Your task to perform on an android device: toggle translation in the chrome app Image 0: 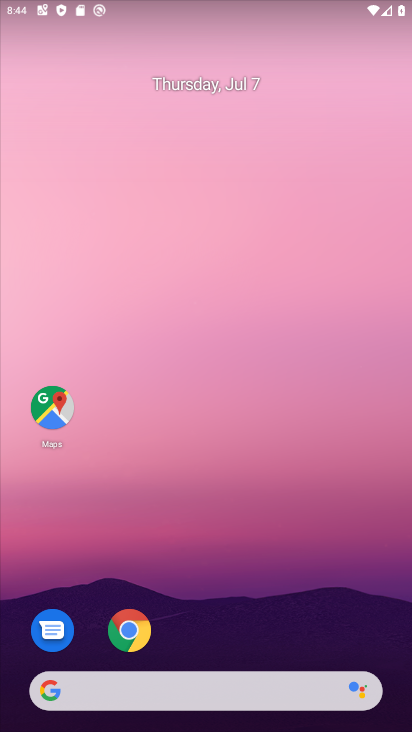
Step 0: drag from (201, 615) to (249, 200)
Your task to perform on an android device: toggle translation in the chrome app Image 1: 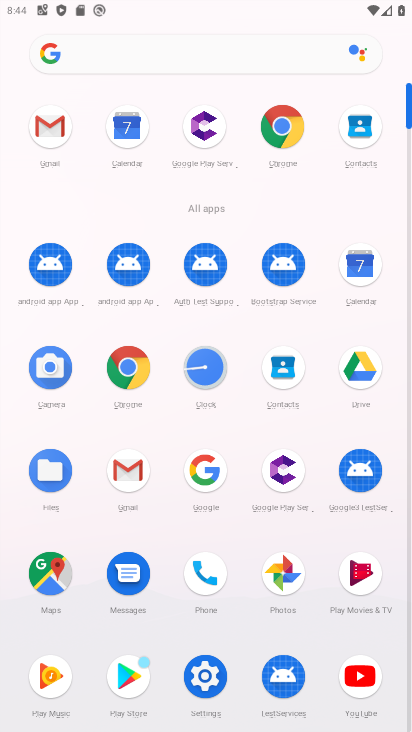
Step 1: click (270, 129)
Your task to perform on an android device: toggle translation in the chrome app Image 2: 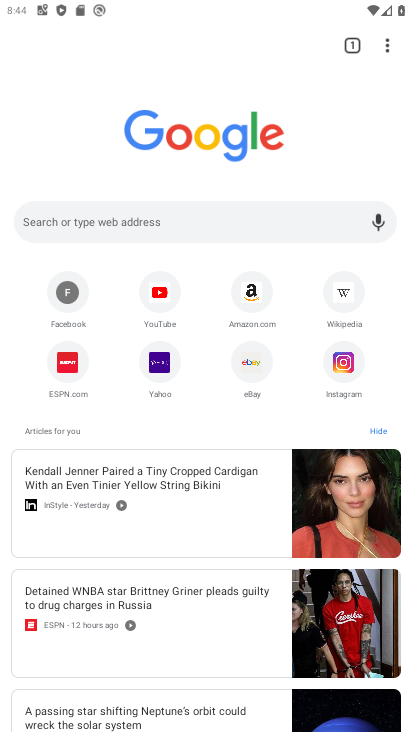
Step 2: click (381, 48)
Your task to perform on an android device: toggle translation in the chrome app Image 3: 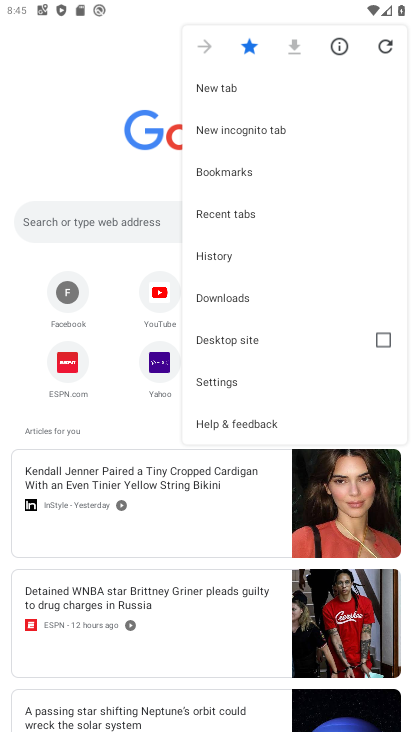
Step 3: click (225, 383)
Your task to perform on an android device: toggle translation in the chrome app Image 4: 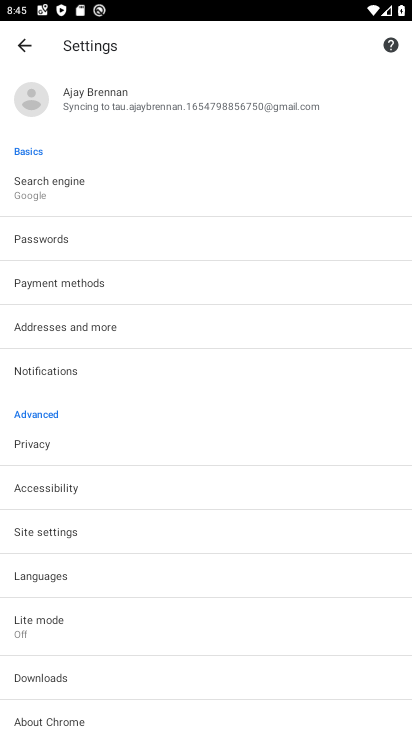
Step 4: drag from (144, 569) to (169, 246)
Your task to perform on an android device: toggle translation in the chrome app Image 5: 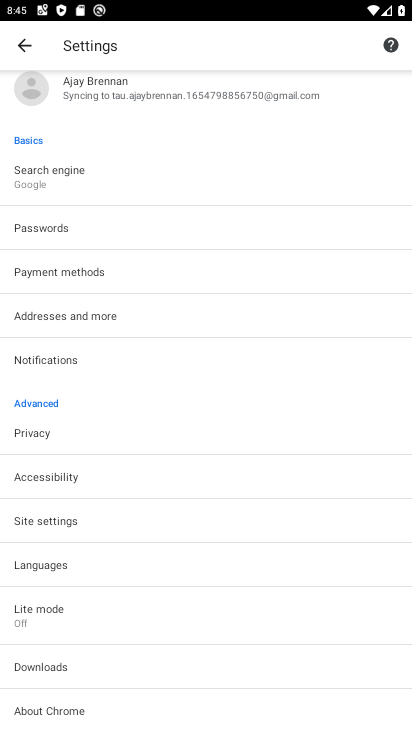
Step 5: click (61, 503)
Your task to perform on an android device: toggle translation in the chrome app Image 6: 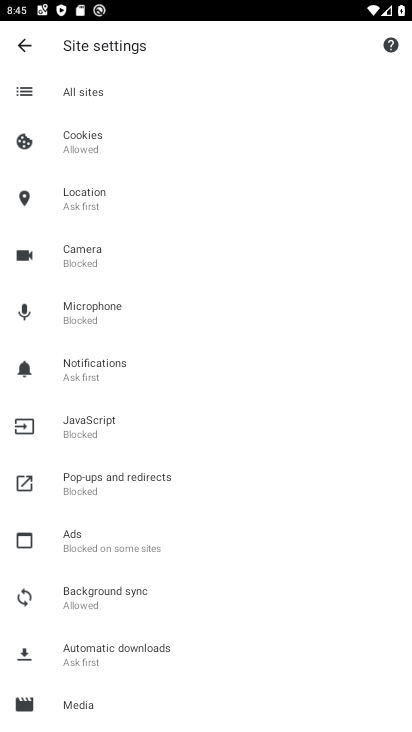
Step 6: drag from (180, 516) to (195, 358)
Your task to perform on an android device: toggle translation in the chrome app Image 7: 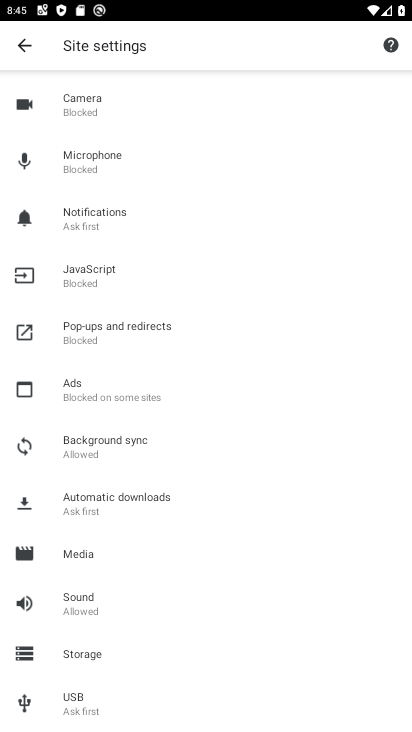
Step 7: drag from (152, 661) to (136, 699)
Your task to perform on an android device: toggle translation in the chrome app Image 8: 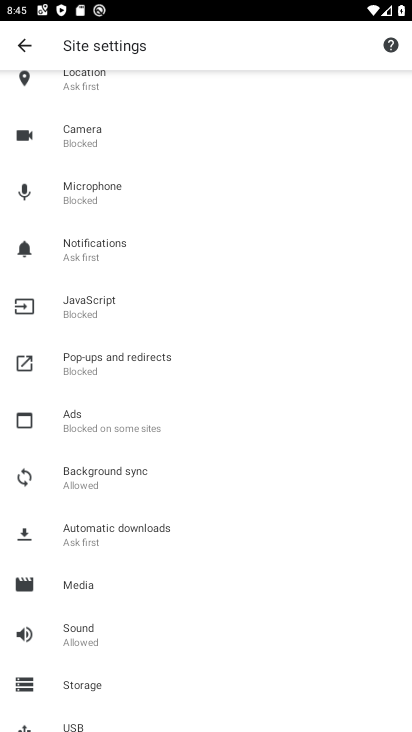
Step 8: click (20, 40)
Your task to perform on an android device: toggle translation in the chrome app Image 9: 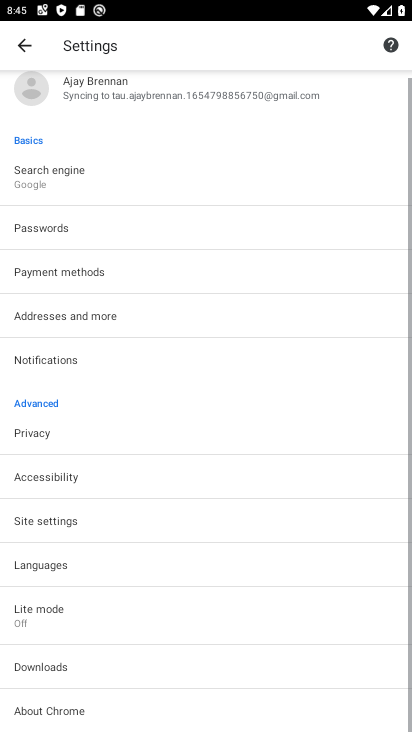
Step 9: drag from (189, 570) to (187, 240)
Your task to perform on an android device: toggle translation in the chrome app Image 10: 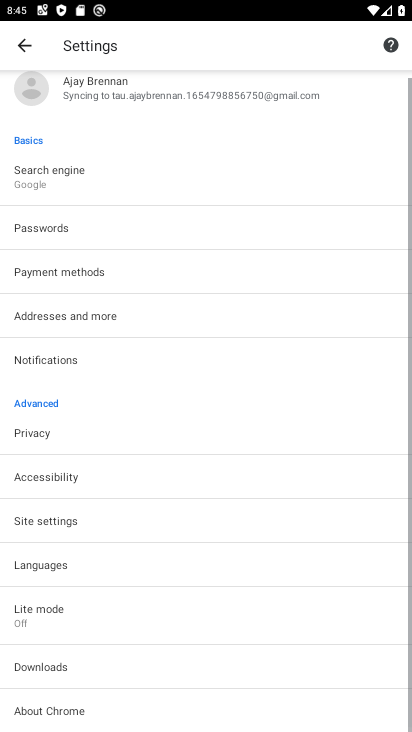
Step 10: click (208, 255)
Your task to perform on an android device: toggle translation in the chrome app Image 11: 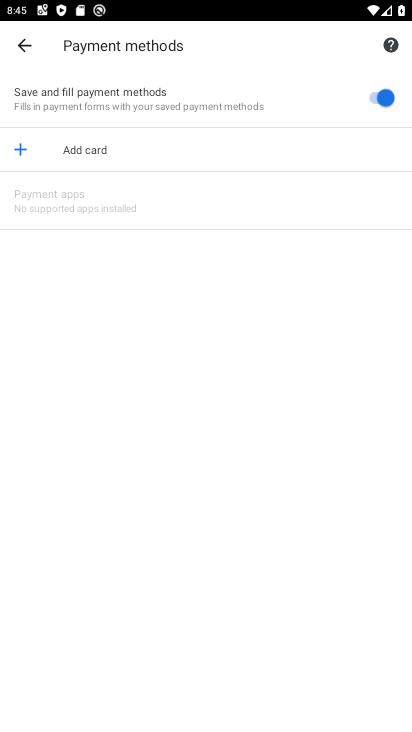
Step 11: drag from (118, 622) to (110, 227)
Your task to perform on an android device: toggle translation in the chrome app Image 12: 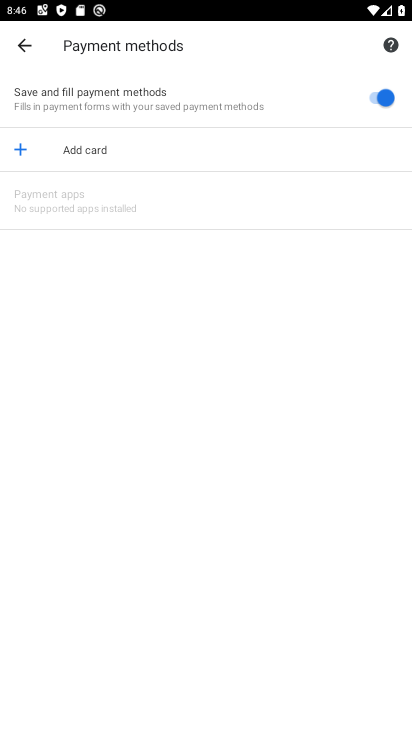
Step 12: click (21, 43)
Your task to perform on an android device: toggle translation in the chrome app Image 13: 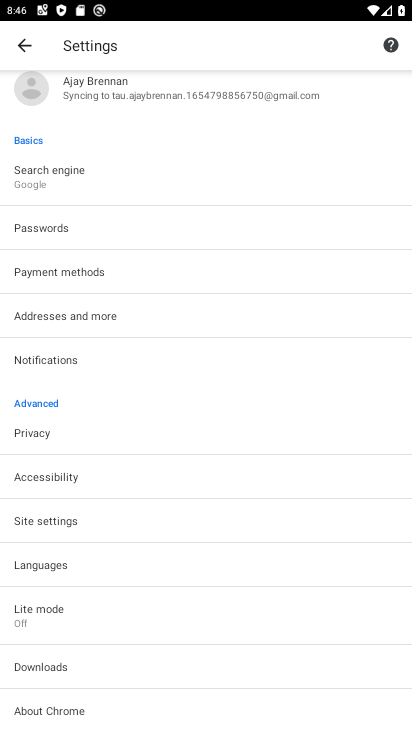
Step 13: click (74, 568)
Your task to perform on an android device: toggle translation in the chrome app Image 14: 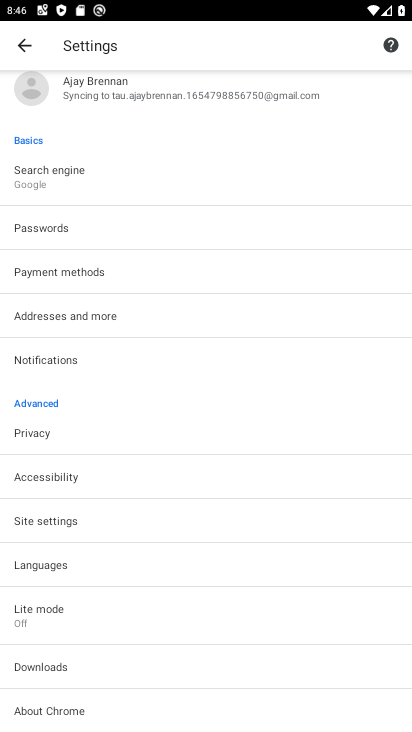
Step 14: click (78, 568)
Your task to perform on an android device: toggle translation in the chrome app Image 15: 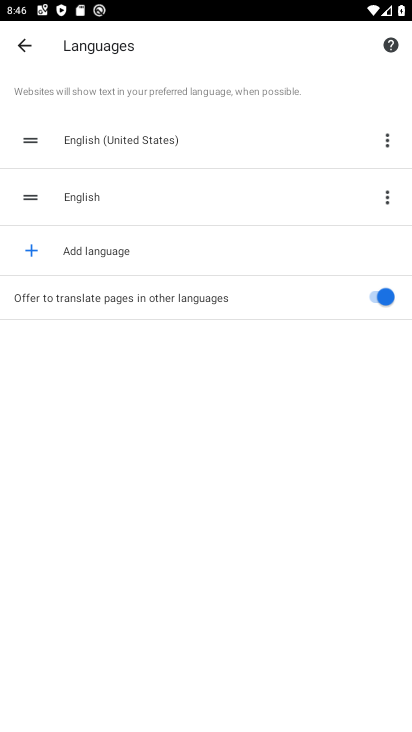
Step 15: drag from (237, 561) to (293, 296)
Your task to perform on an android device: toggle translation in the chrome app Image 16: 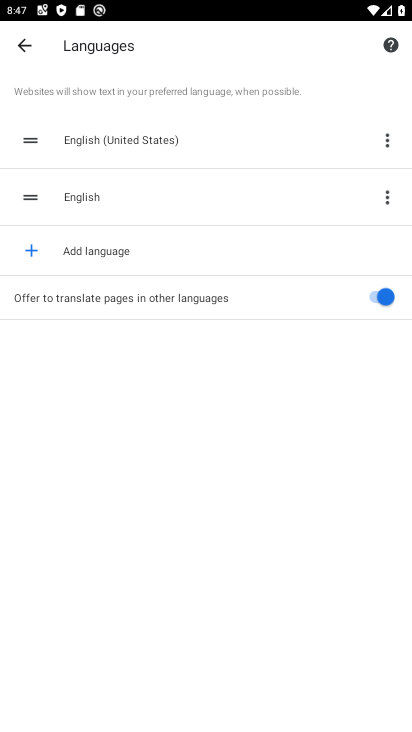
Step 16: drag from (245, 495) to (224, 257)
Your task to perform on an android device: toggle translation in the chrome app Image 17: 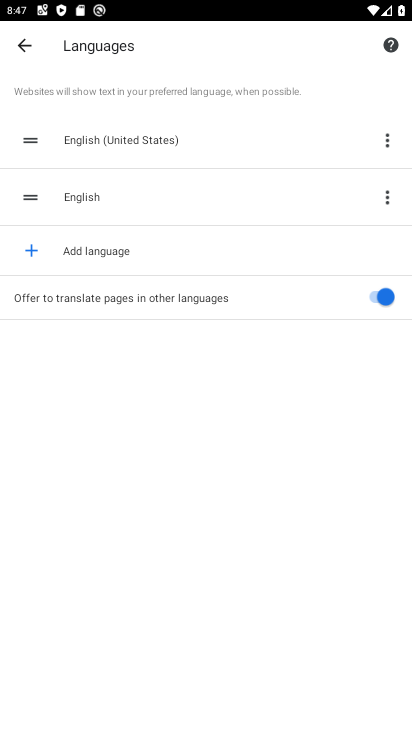
Step 17: drag from (151, 608) to (239, 258)
Your task to perform on an android device: toggle translation in the chrome app Image 18: 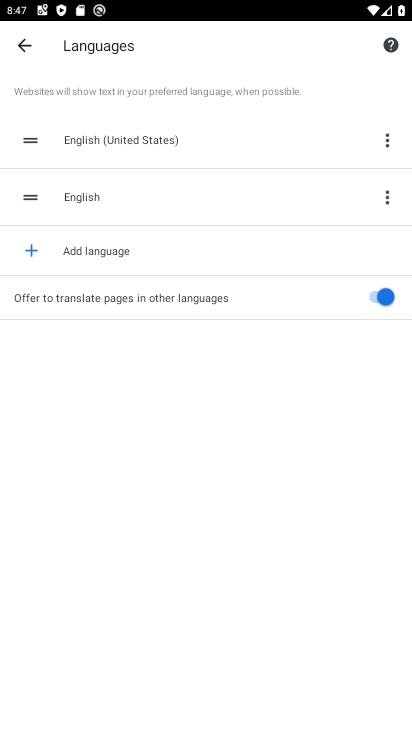
Step 18: click (178, 202)
Your task to perform on an android device: toggle translation in the chrome app Image 19: 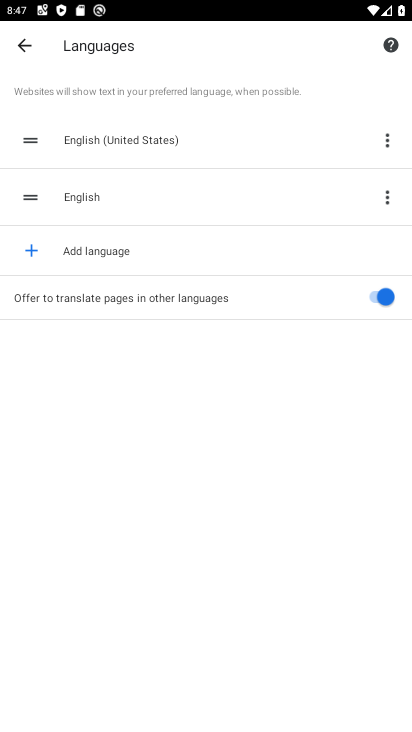
Step 19: click (383, 286)
Your task to perform on an android device: toggle translation in the chrome app Image 20: 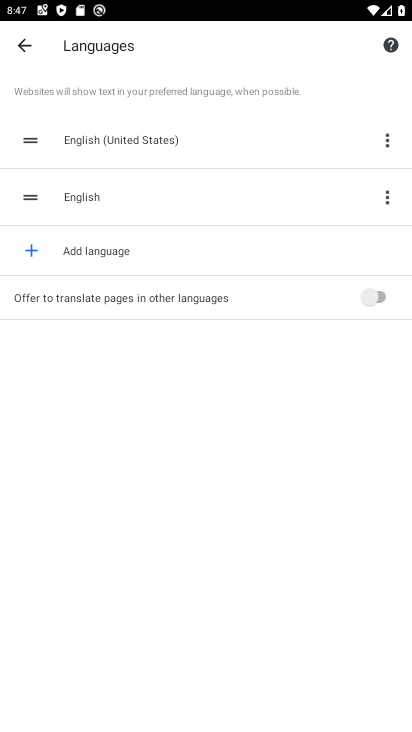
Step 20: task complete